Your task to perform on an android device: What's the weather? Image 0: 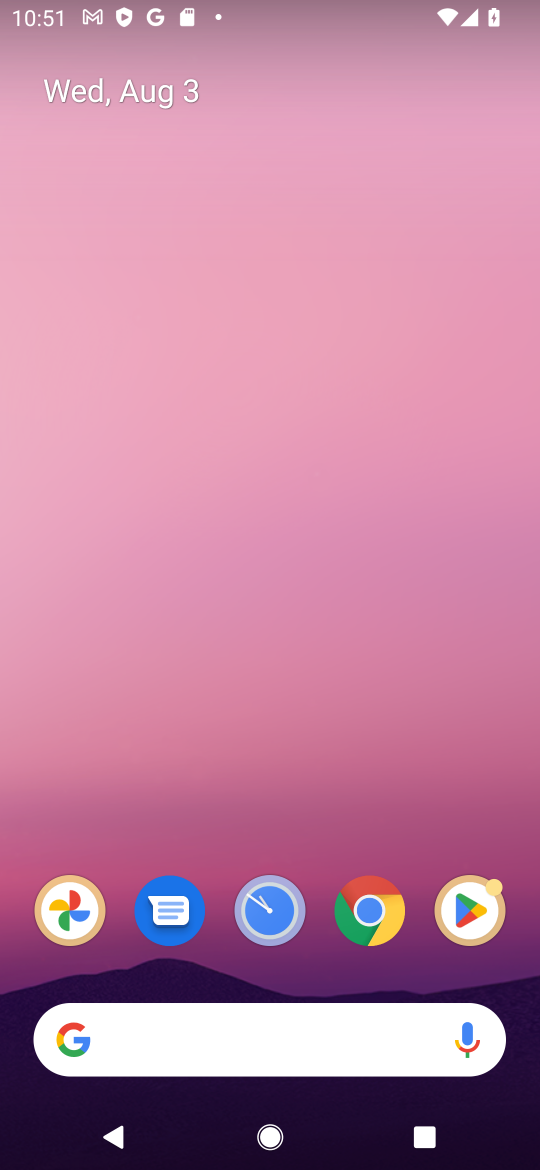
Step 0: press home button
Your task to perform on an android device: What's the weather? Image 1: 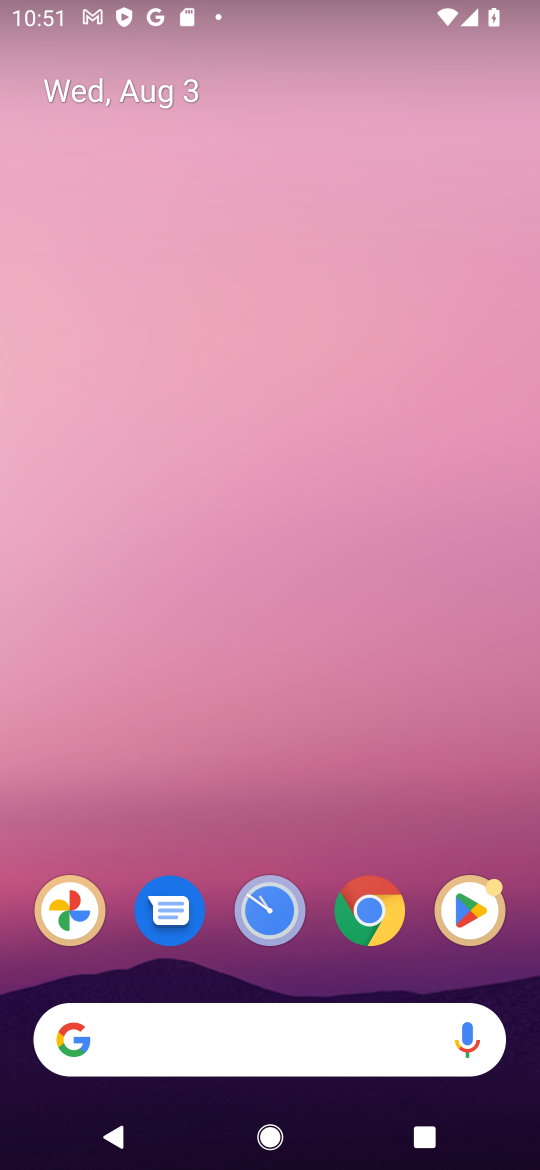
Step 1: click (75, 1041)
Your task to perform on an android device: What's the weather? Image 2: 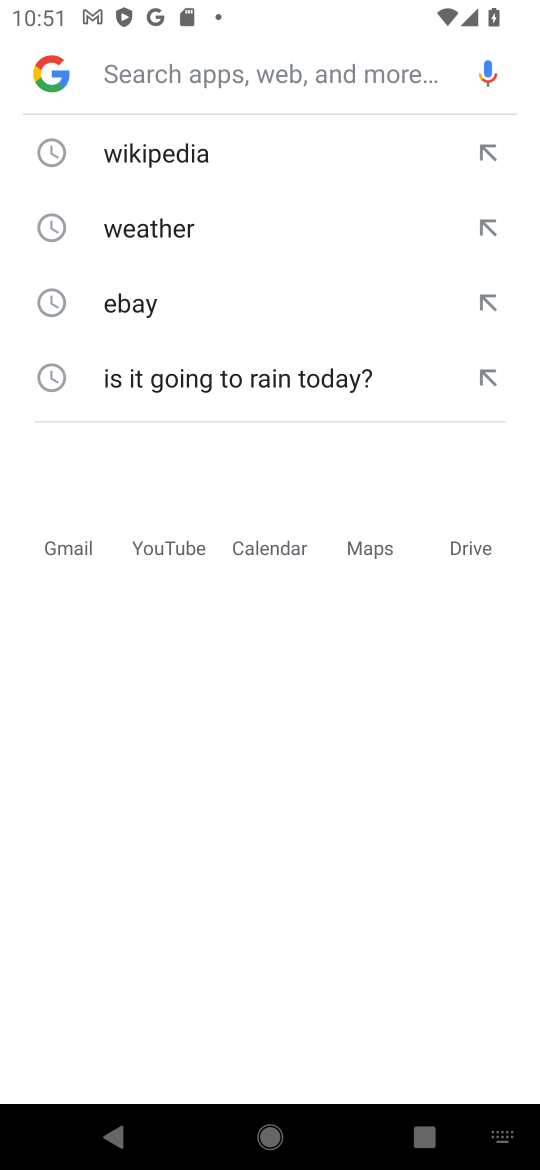
Step 2: click (153, 223)
Your task to perform on an android device: What's the weather? Image 3: 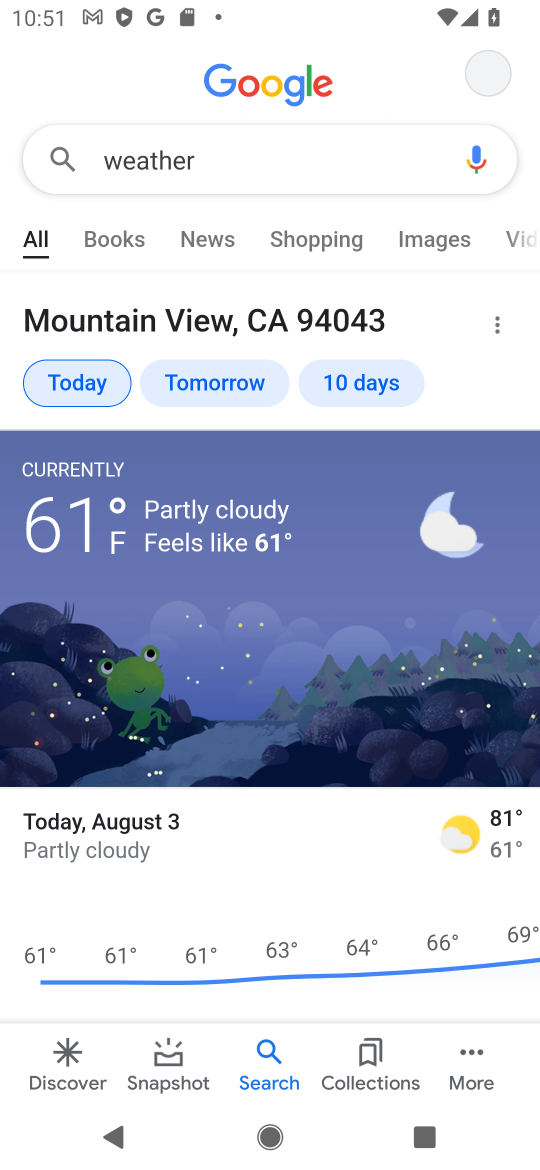
Step 3: task complete